Your task to perform on an android device: see sites visited before in the chrome app Image 0: 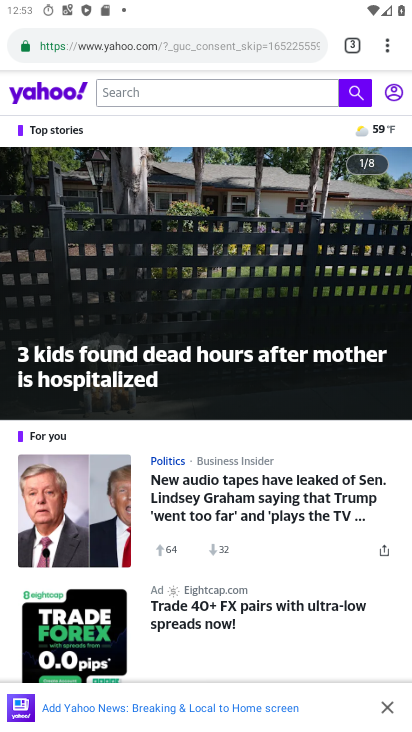
Step 0: drag from (387, 36) to (239, 267)
Your task to perform on an android device: see sites visited before in the chrome app Image 1: 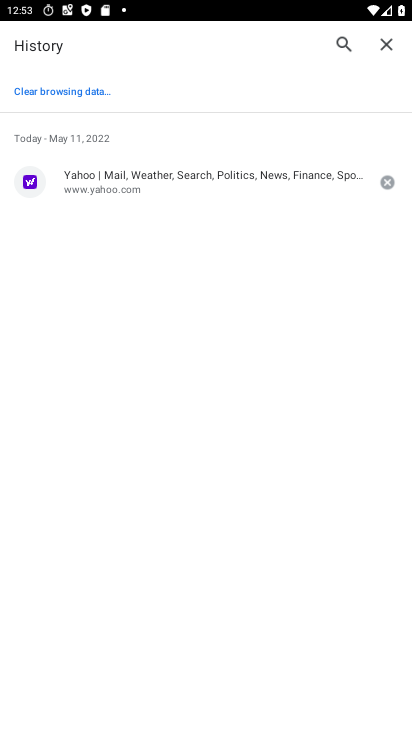
Step 1: task complete